Your task to perform on an android device: Open calendar and show me the second week of next month Image 0: 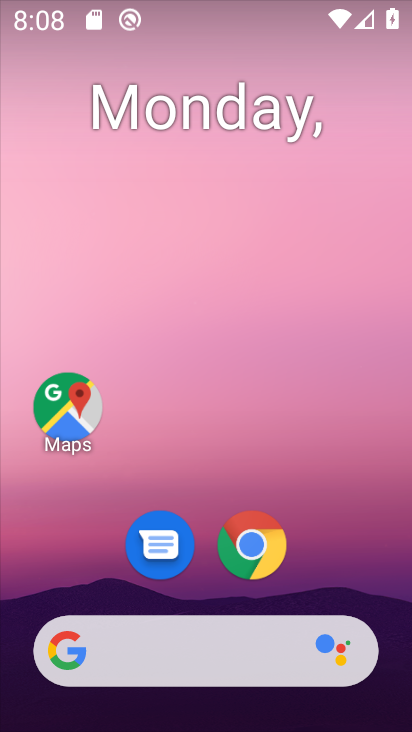
Step 0: drag from (334, 597) to (5, 23)
Your task to perform on an android device: Open calendar and show me the second week of next month Image 1: 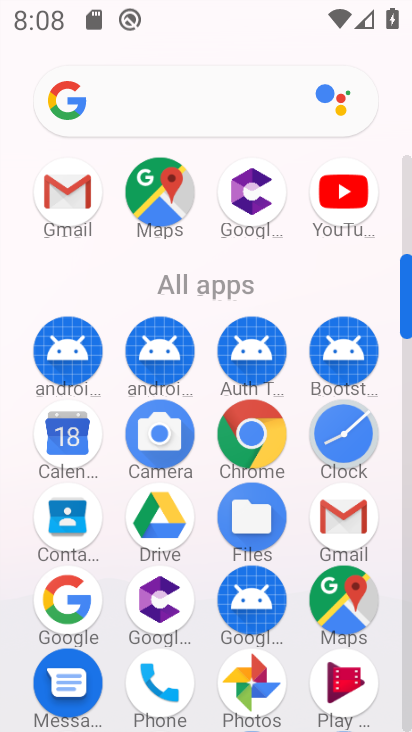
Step 1: click (59, 421)
Your task to perform on an android device: Open calendar and show me the second week of next month Image 2: 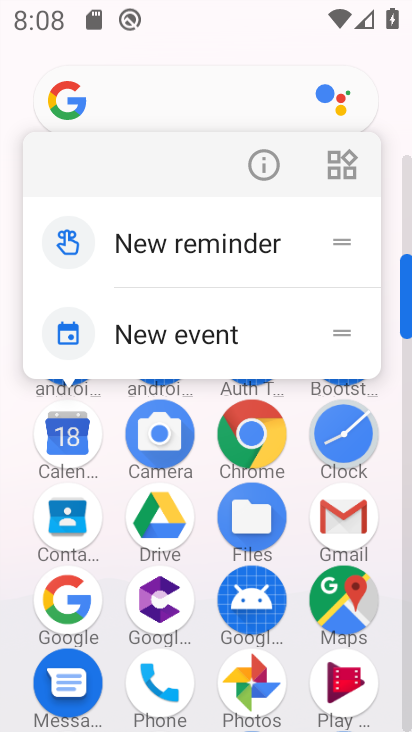
Step 2: drag from (59, 421) to (90, 451)
Your task to perform on an android device: Open calendar and show me the second week of next month Image 3: 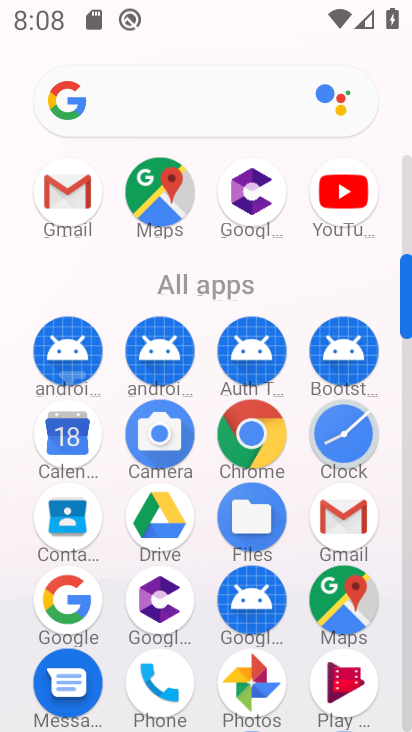
Step 3: click (57, 435)
Your task to perform on an android device: Open calendar and show me the second week of next month Image 4: 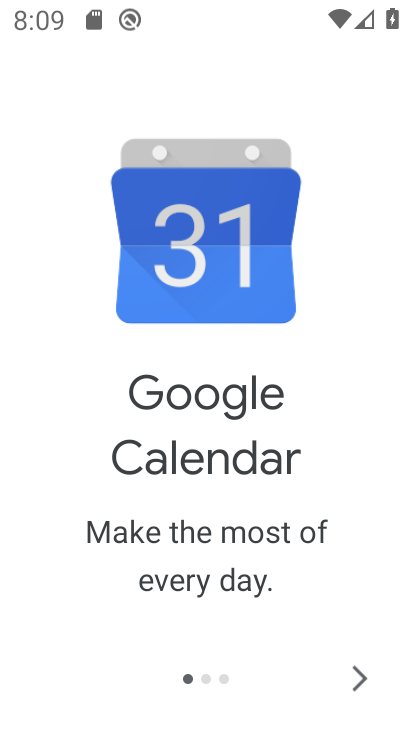
Step 4: click (358, 675)
Your task to perform on an android device: Open calendar and show me the second week of next month Image 5: 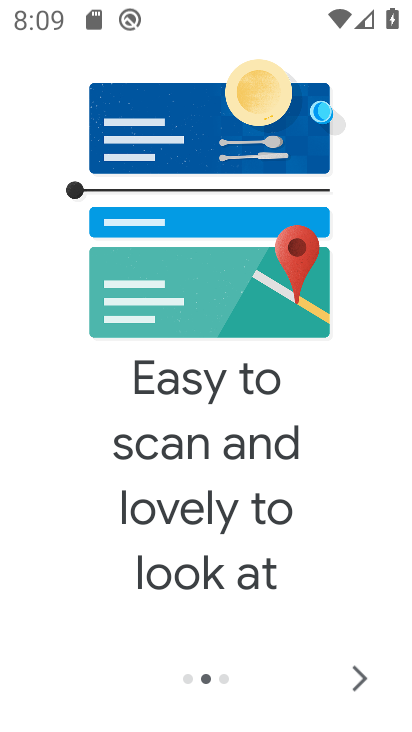
Step 5: click (355, 675)
Your task to perform on an android device: Open calendar and show me the second week of next month Image 6: 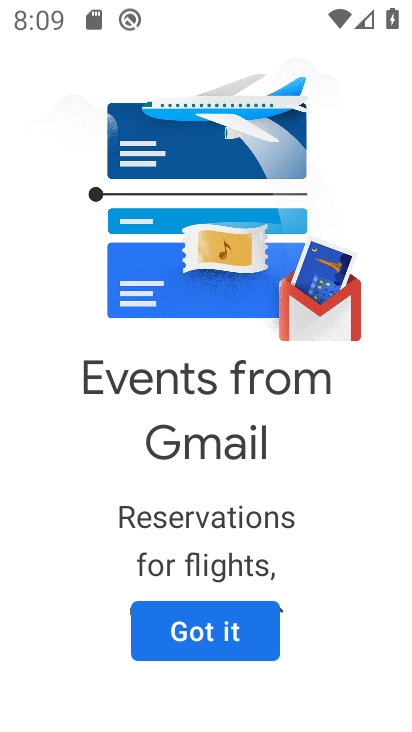
Step 6: click (222, 620)
Your task to perform on an android device: Open calendar and show me the second week of next month Image 7: 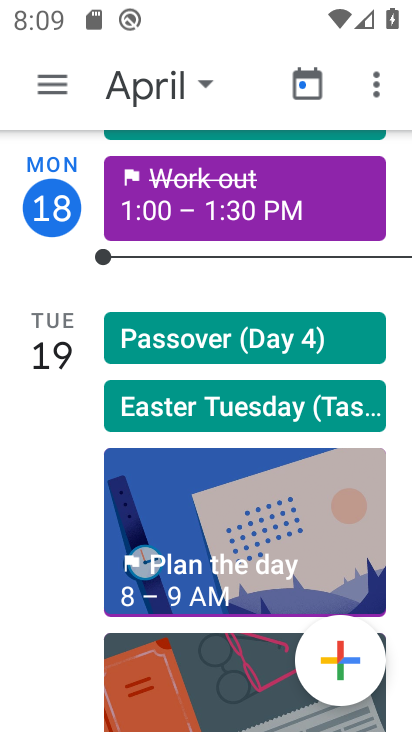
Step 7: click (193, 83)
Your task to perform on an android device: Open calendar and show me the second week of next month Image 8: 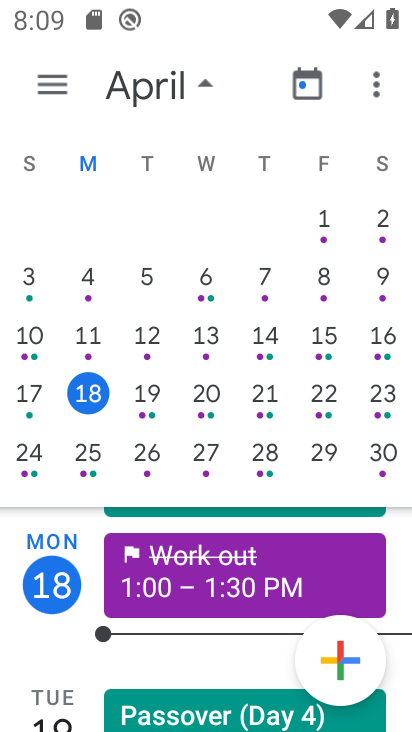
Step 8: drag from (240, 378) to (15, 421)
Your task to perform on an android device: Open calendar and show me the second week of next month Image 9: 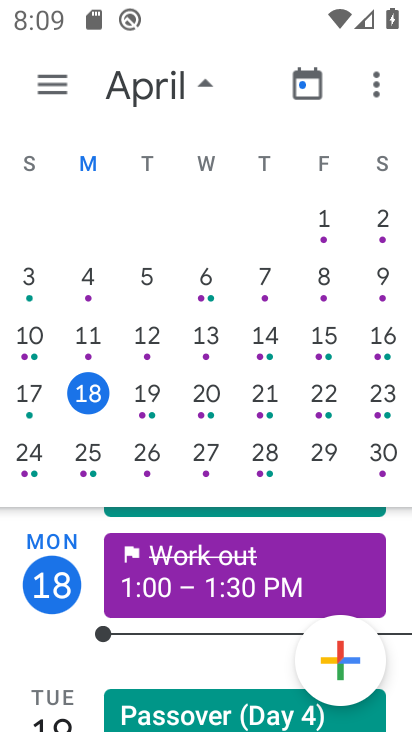
Step 9: drag from (284, 364) to (3, 355)
Your task to perform on an android device: Open calendar and show me the second week of next month Image 10: 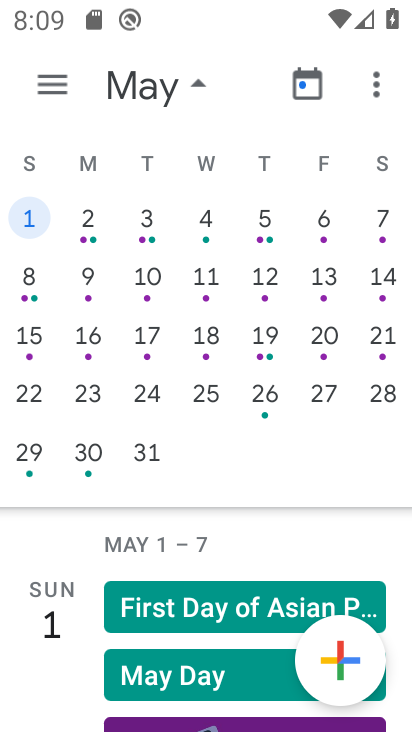
Step 10: click (82, 274)
Your task to perform on an android device: Open calendar and show me the second week of next month Image 11: 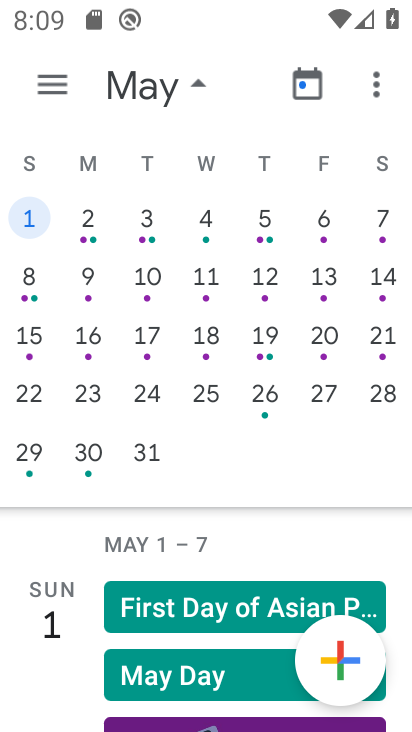
Step 11: click (82, 274)
Your task to perform on an android device: Open calendar and show me the second week of next month Image 12: 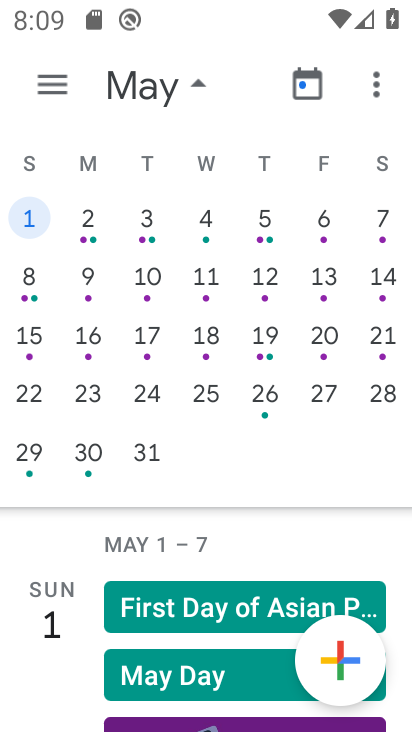
Step 12: click (82, 274)
Your task to perform on an android device: Open calendar and show me the second week of next month Image 13: 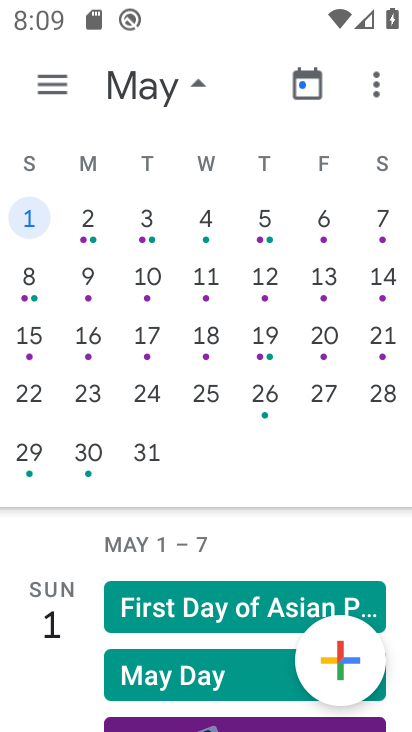
Step 13: click (95, 257)
Your task to perform on an android device: Open calendar and show me the second week of next month Image 14: 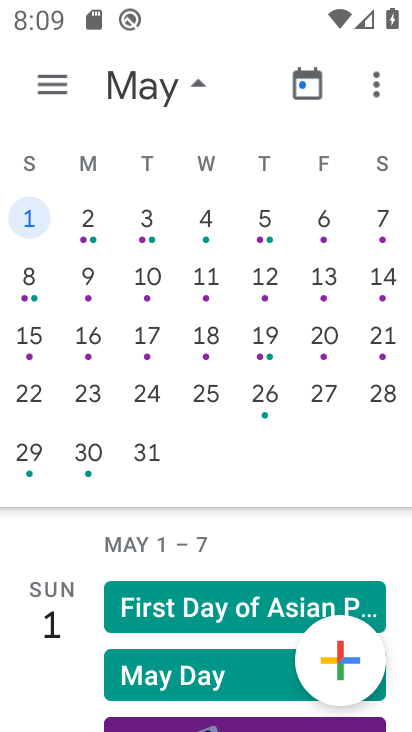
Step 14: click (86, 270)
Your task to perform on an android device: Open calendar and show me the second week of next month Image 15: 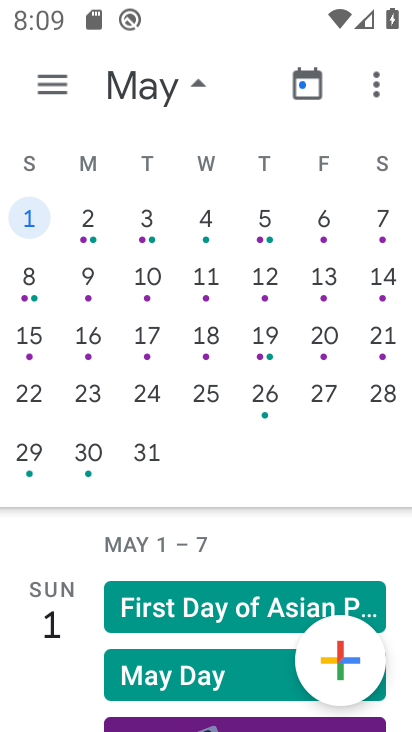
Step 15: click (120, 270)
Your task to perform on an android device: Open calendar and show me the second week of next month Image 16: 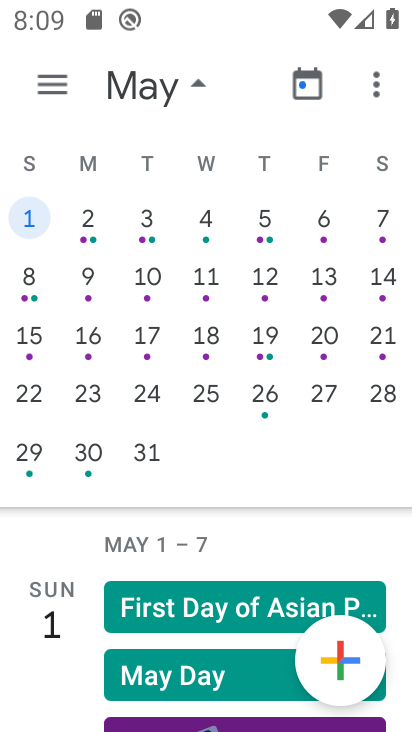
Step 16: click (120, 270)
Your task to perform on an android device: Open calendar and show me the second week of next month Image 17: 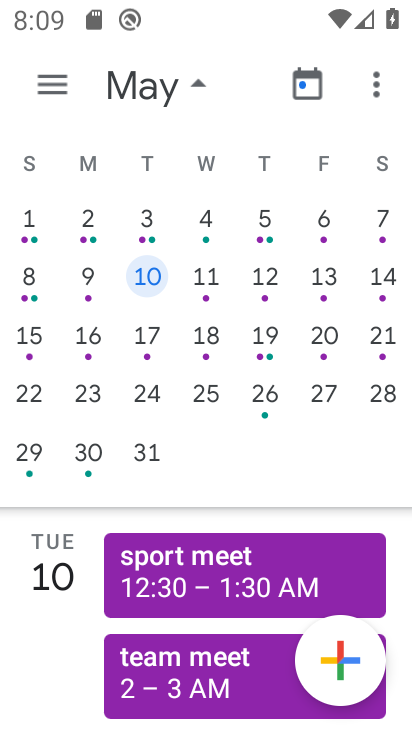
Step 17: task complete